Your task to perform on an android device: set the stopwatch Image 0: 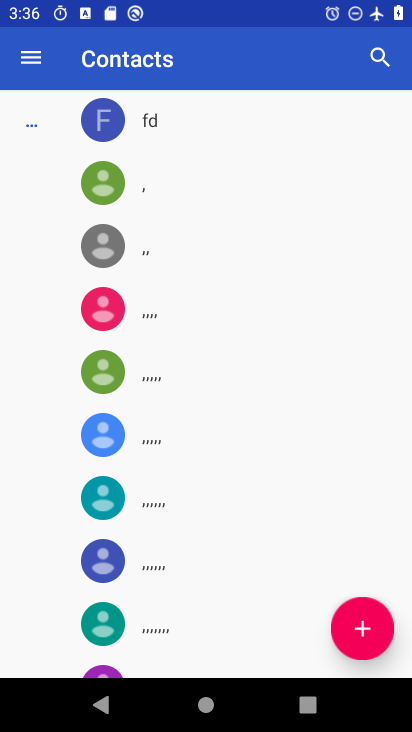
Step 0: press home button
Your task to perform on an android device: set the stopwatch Image 1: 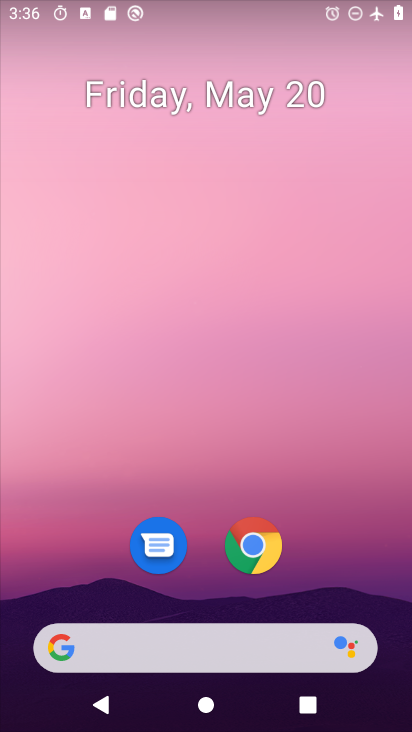
Step 1: drag from (298, 627) to (335, 0)
Your task to perform on an android device: set the stopwatch Image 2: 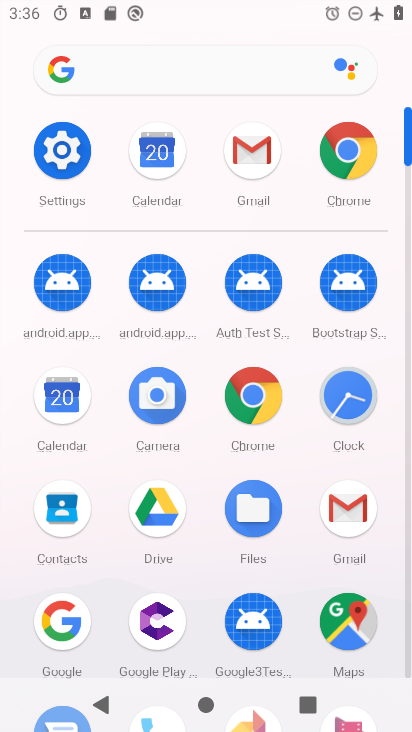
Step 2: click (350, 401)
Your task to perform on an android device: set the stopwatch Image 3: 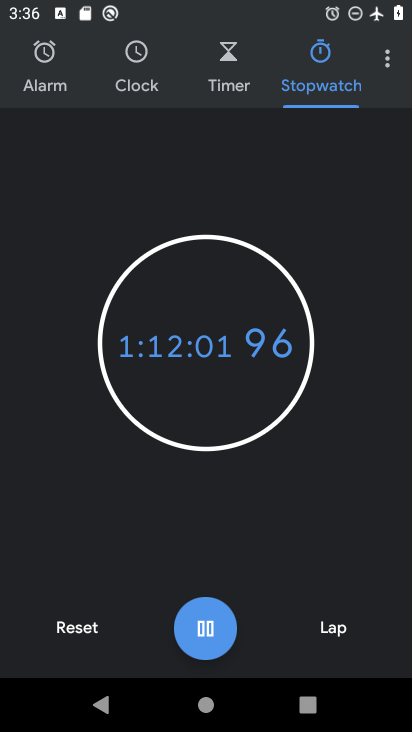
Step 3: task complete